Your task to perform on an android device: Go to wifi settings Image 0: 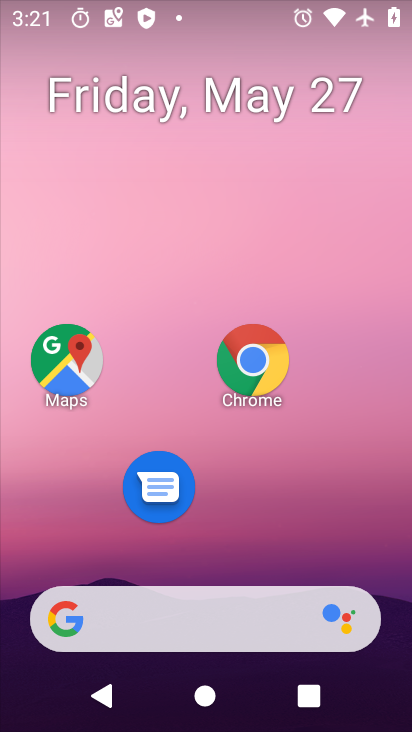
Step 0: drag from (250, 521) to (266, 99)
Your task to perform on an android device: Go to wifi settings Image 1: 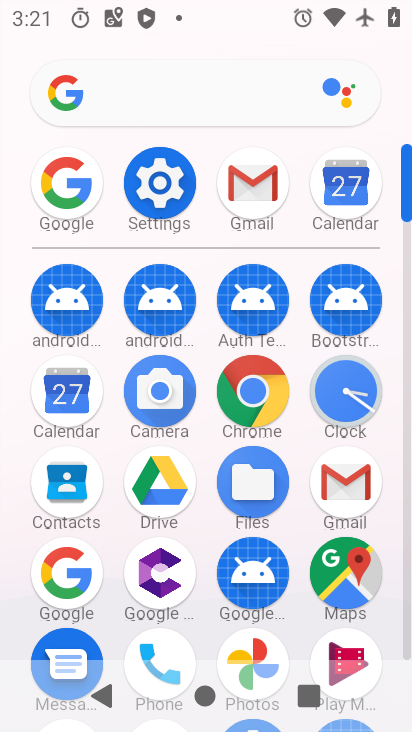
Step 1: click (164, 199)
Your task to perform on an android device: Go to wifi settings Image 2: 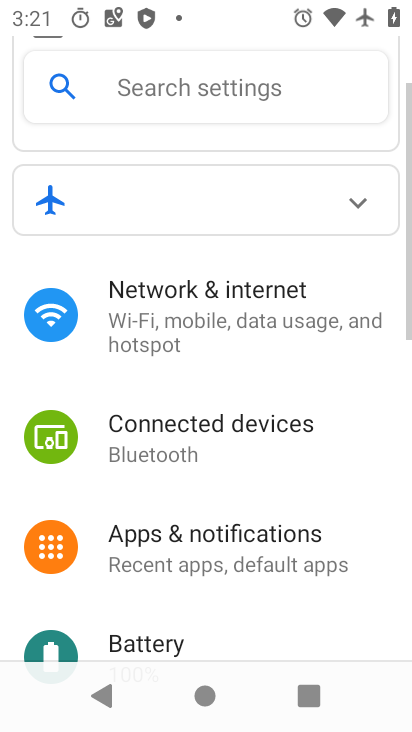
Step 2: click (221, 304)
Your task to perform on an android device: Go to wifi settings Image 3: 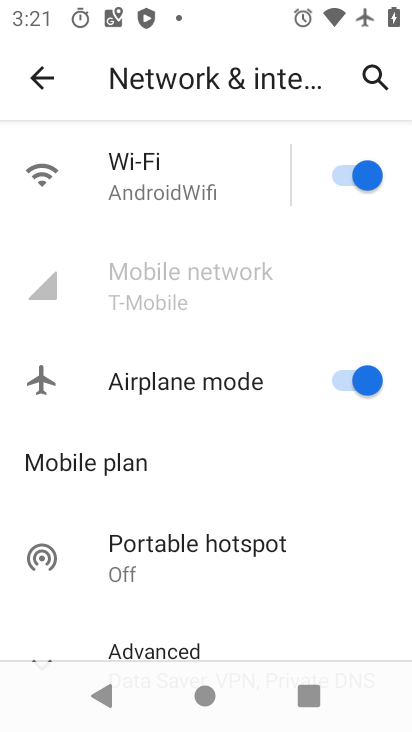
Step 3: click (178, 161)
Your task to perform on an android device: Go to wifi settings Image 4: 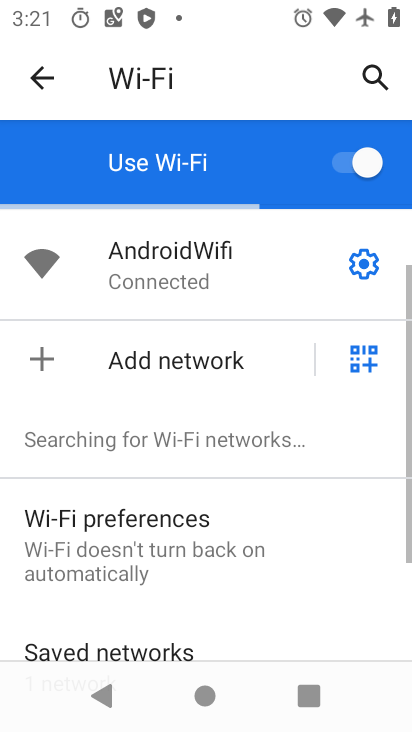
Step 4: click (178, 266)
Your task to perform on an android device: Go to wifi settings Image 5: 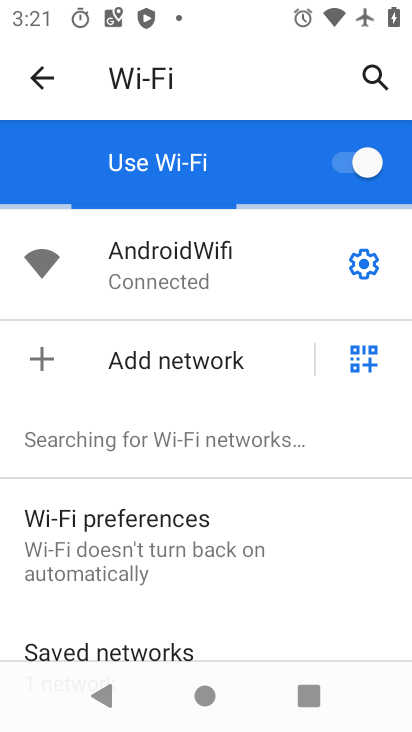
Step 5: click (258, 261)
Your task to perform on an android device: Go to wifi settings Image 6: 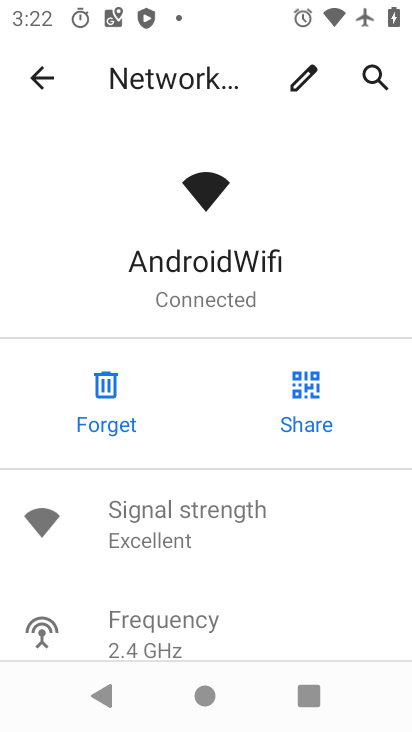
Step 6: task complete